Your task to perform on an android device: find snoozed emails in the gmail app Image 0: 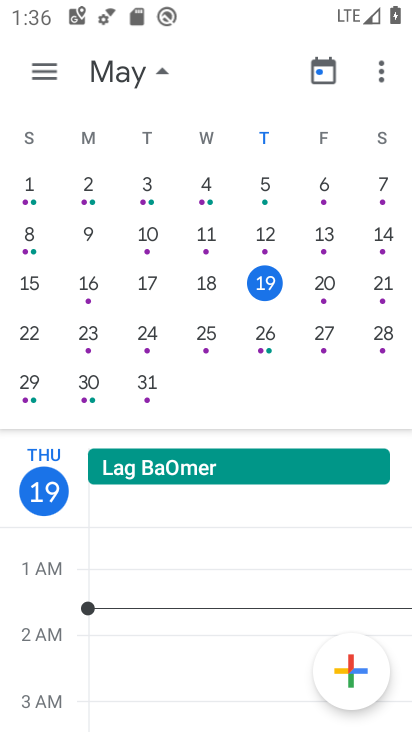
Step 0: press home button
Your task to perform on an android device: find snoozed emails in the gmail app Image 1: 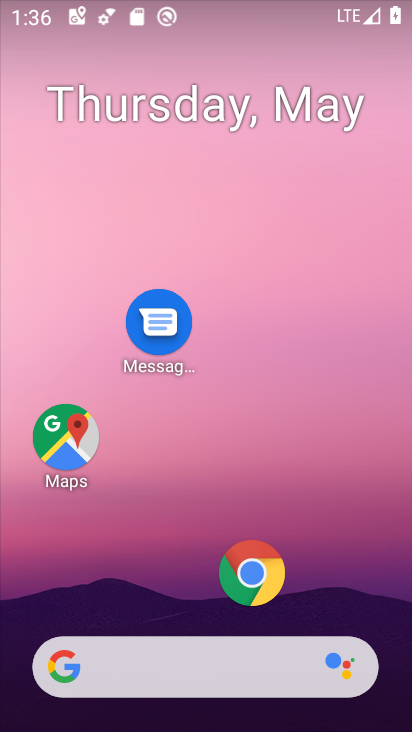
Step 1: drag from (171, 549) to (302, 86)
Your task to perform on an android device: find snoozed emails in the gmail app Image 2: 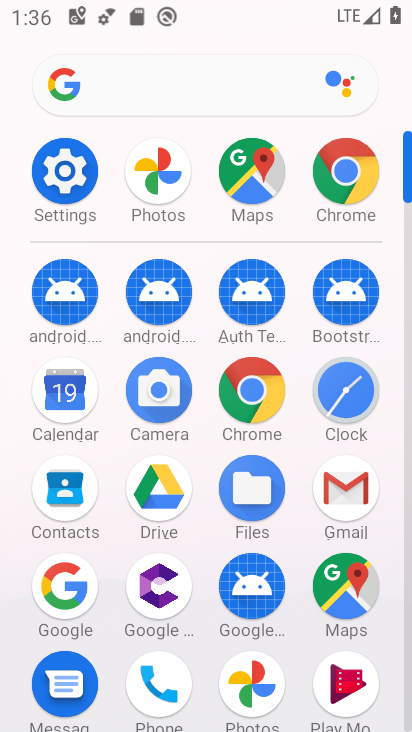
Step 2: click (333, 495)
Your task to perform on an android device: find snoozed emails in the gmail app Image 3: 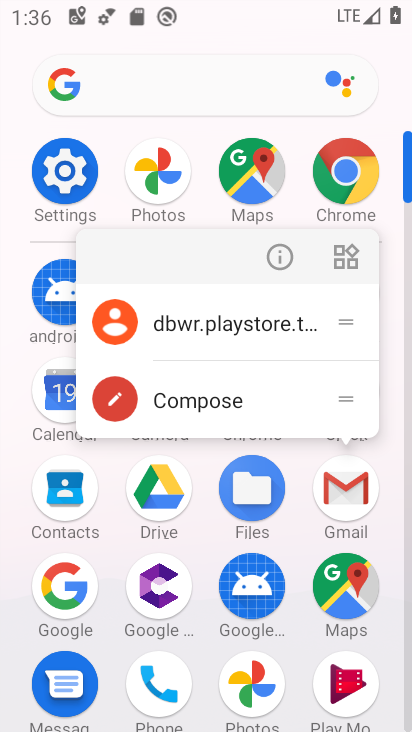
Step 3: click (200, 317)
Your task to perform on an android device: find snoozed emails in the gmail app Image 4: 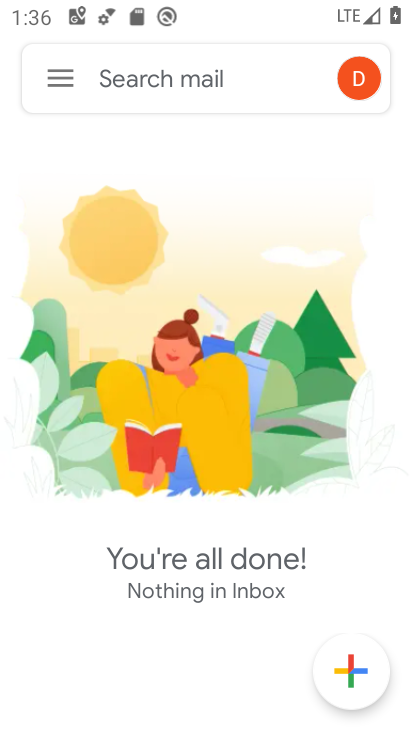
Step 4: click (49, 80)
Your task to perform on an android device: find snoozed emails in the gmail app Image 5: 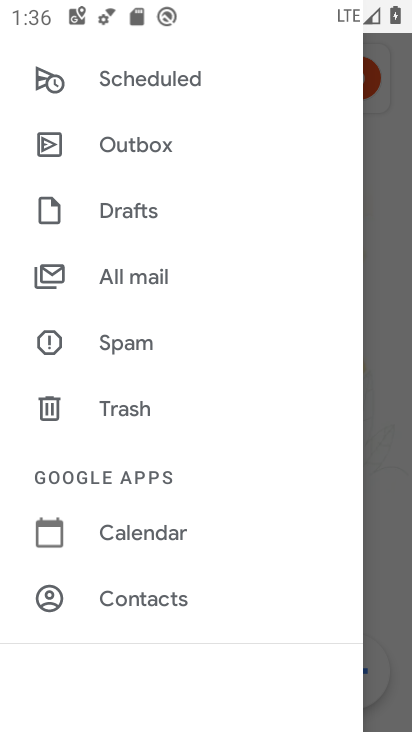
Step 5: drag from (133, 186) to (159, 585)
Your task to perform on an android device: find snoozed emails in the gmail app Image 6: 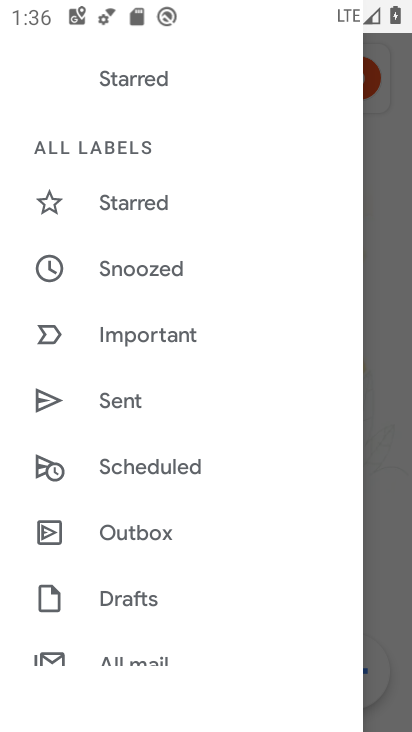
Step 6: drag from (126, 165) to (230, 507)
Your task to perform on an android device: find snoozed emails in the gmail app Image 7: 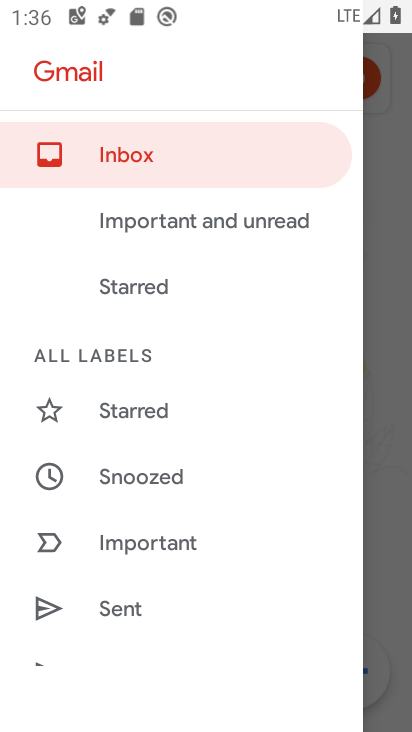
Step 7: click (138, 470)
Your task to perform on an android device: find snoozed emails in the gmail app Image 8: 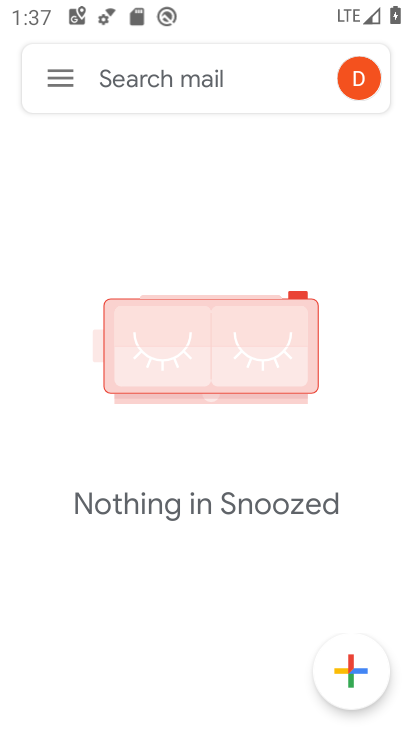
Step 8: task complete